Your task to perform on an android device: turn notification dots on Image 0: 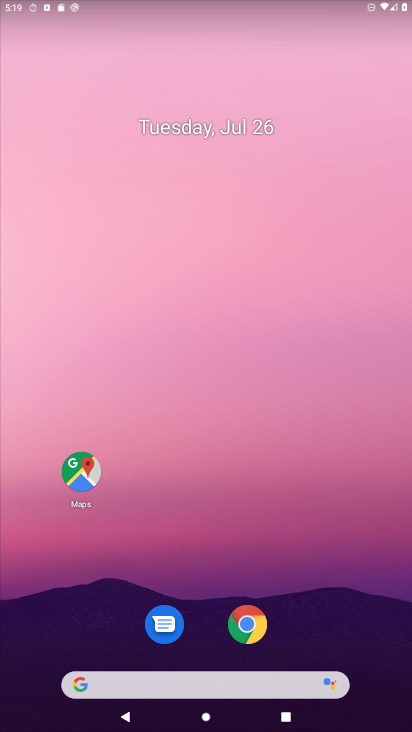
Step 0: drag from (131, 674) to (228, 1)
Your task to perform on an android device: turn notification dots on Image 1: 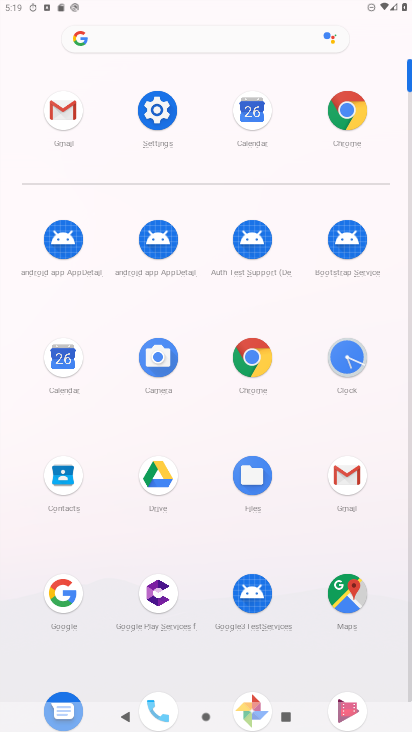
Step 1: click (245, 116)
Your task to perform on an android device: turn notification dots on Image 2: 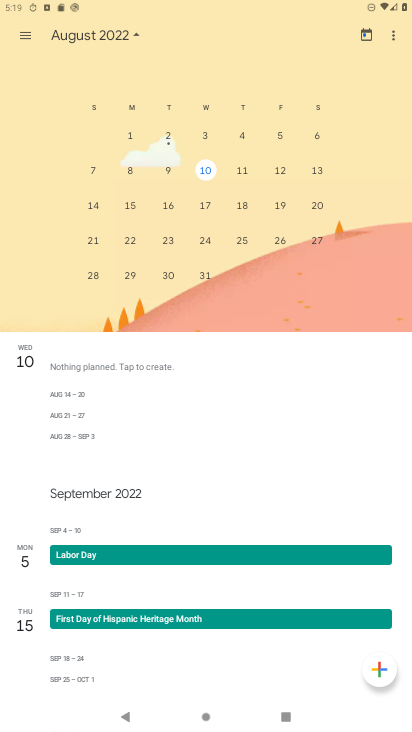
Step 2: press home button
Your task to perform on an android device: turn notification dots on Image 3: 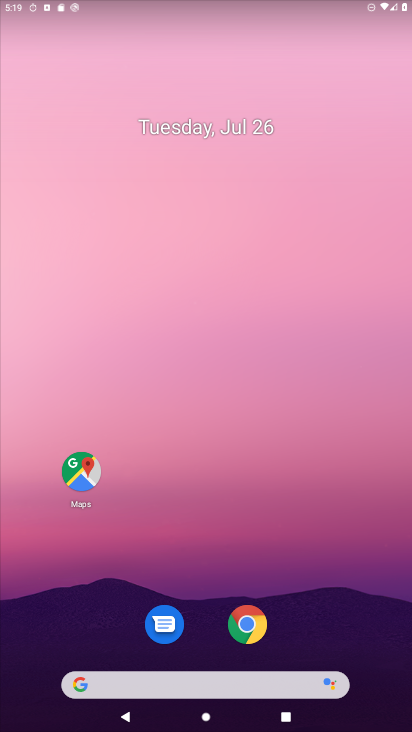
Step 3: drag from (260, 681) to (256, 3)
Your task to perform on an android device: turn notification dots on Image 4: 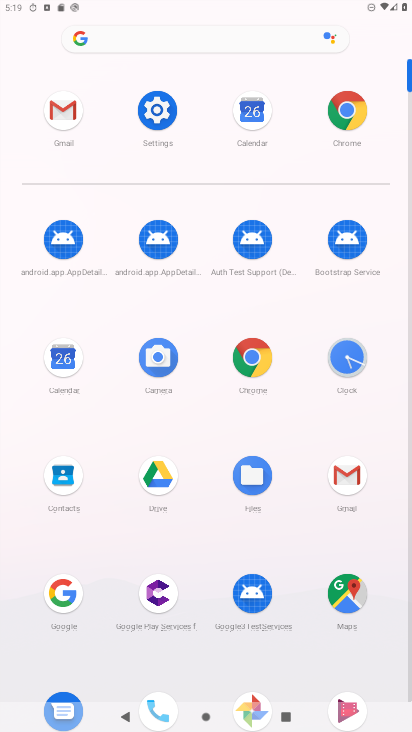
Step 4: click (149, 113)
Your task to perform on an android device: turn notification dots on Image 5: 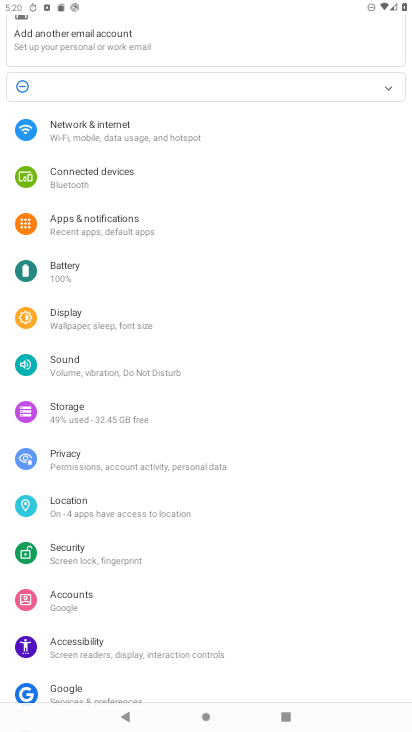
Step 5: click (104, 241)
Your task to perform on an android device: turn notification dots on Image 6: 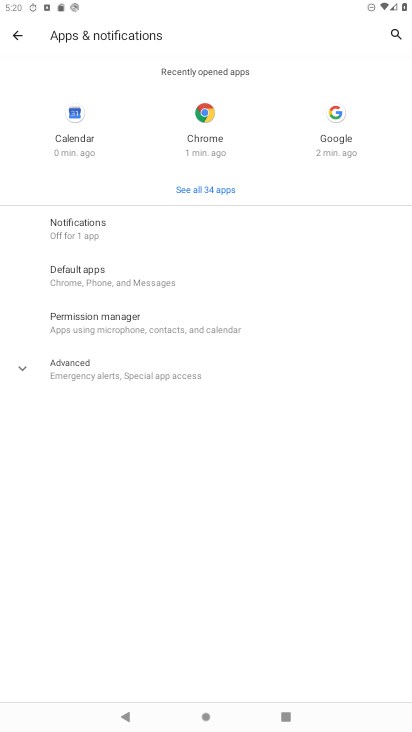
Step 6: click (97, 232)
Your task to perform on an android device: turn notification dots on Image 7: 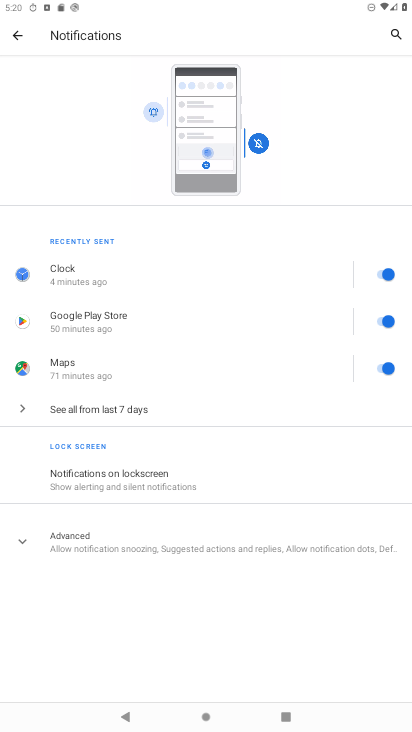
Step 7: click (104, 540)
Your task to perform on an android device: turn notification dots on Image 8: 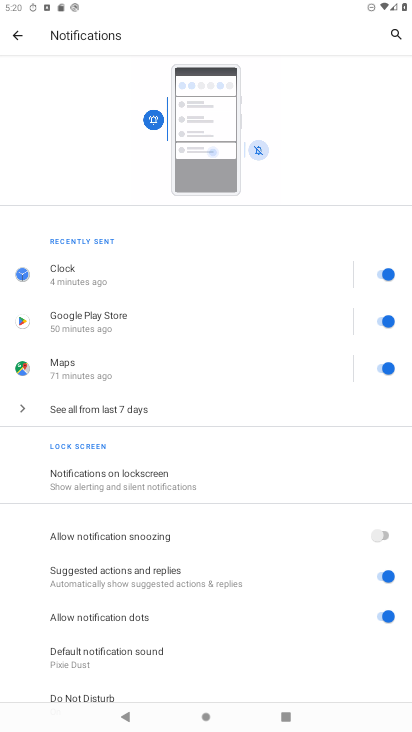
Step 8: task complete